Your task to perform on an android device: turn notification dots off Image 0: 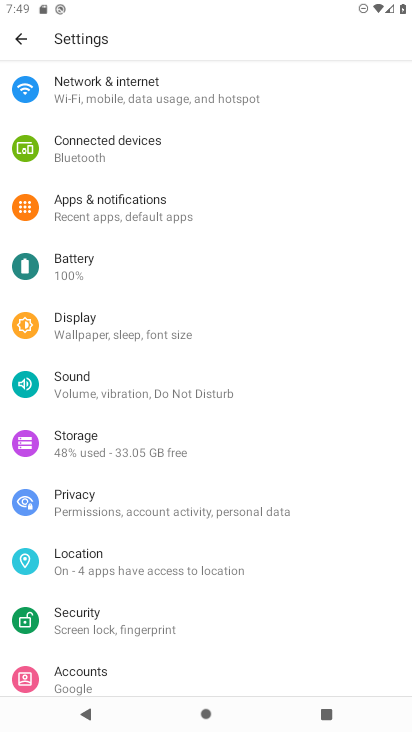
Step 0: click (123, 200)
Your task to perform on an android device: turn notification dots off Image 1: 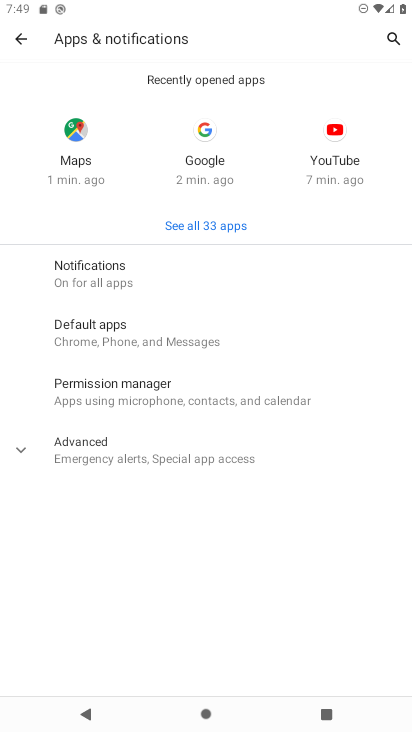
Step 1: click (105, 264)
Your task to perform on an android device: turn notification dots off Image 2: 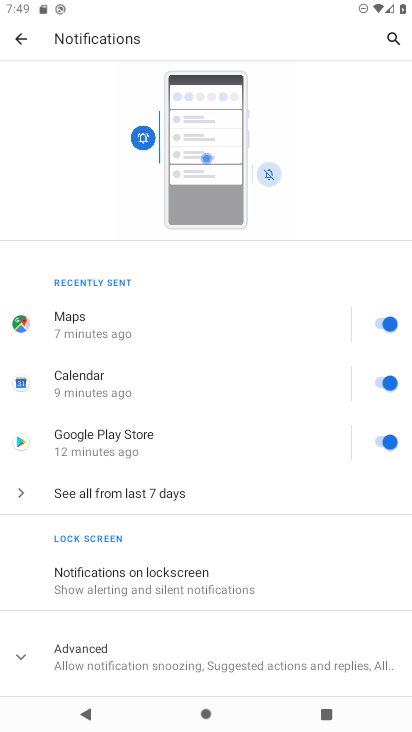
Step 2: click (95, 654)
Your task to perform on an android device: turn notification dots off Image 3: 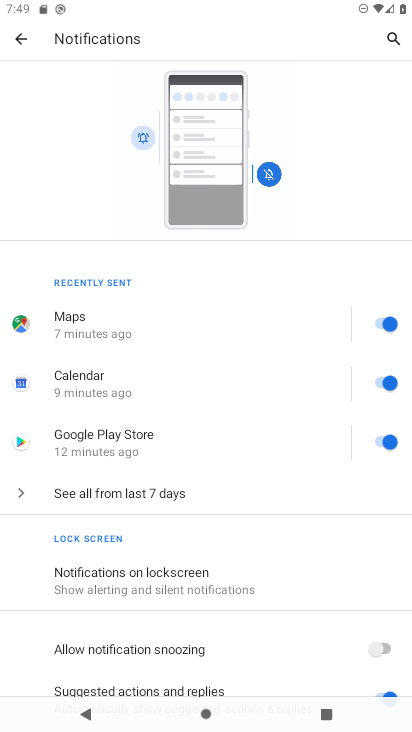
Step 3: drag from (195, 612) to (251, 422)
Your task to perform on an android device: turn notification dots off Image 4: 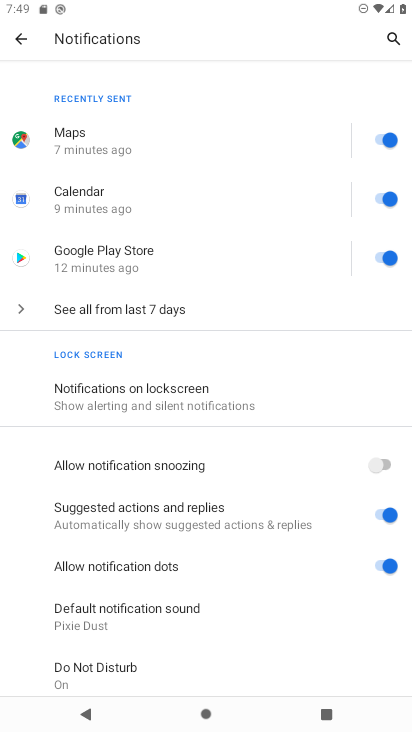
Step 4: click (385, 562)
Your task to perform on an android device: turn notification dots off Image 5: 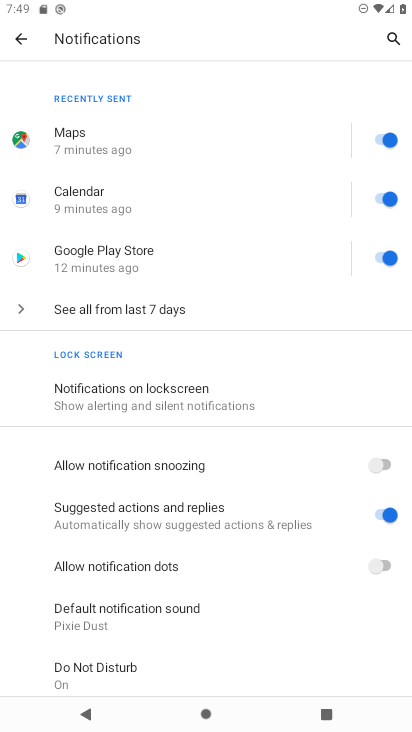
Step 5: task complete